Your task to perform on an android device: turn on improve location accuracy Image 0: 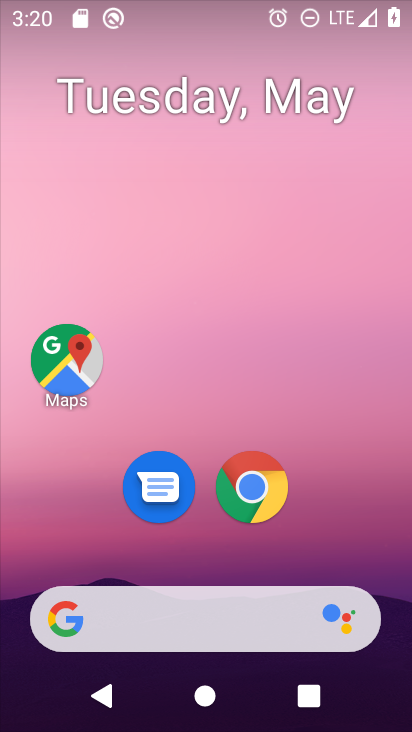
Step 0: drag from (165, 291) to (215, 160)
Your task to perform on an android device: turn on improve location accuracy Image 1: 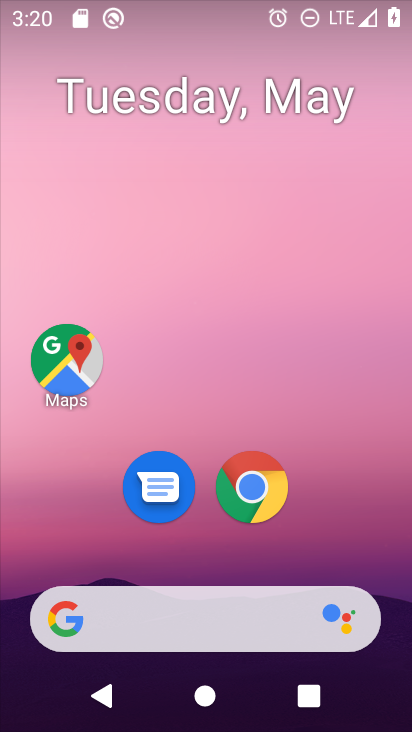
Step 1: drag from (86, 425) to (249, 83)
Your task to perform on an android device: turn on improve location accuracy Image 2: 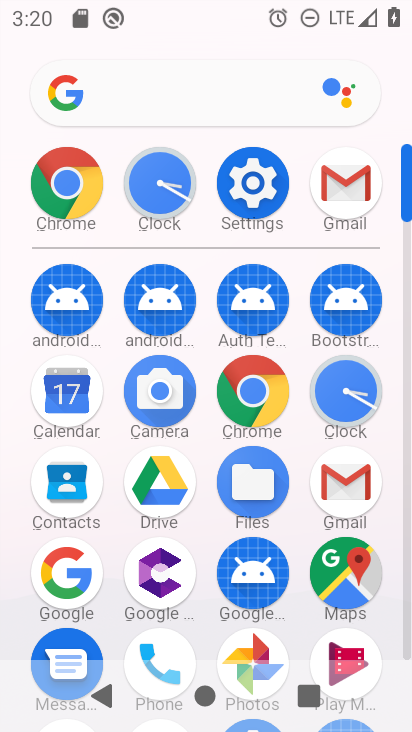
Step 2: click (246, 209)
Your task to perform on an android device: turn on improve location accuracy Image 3: 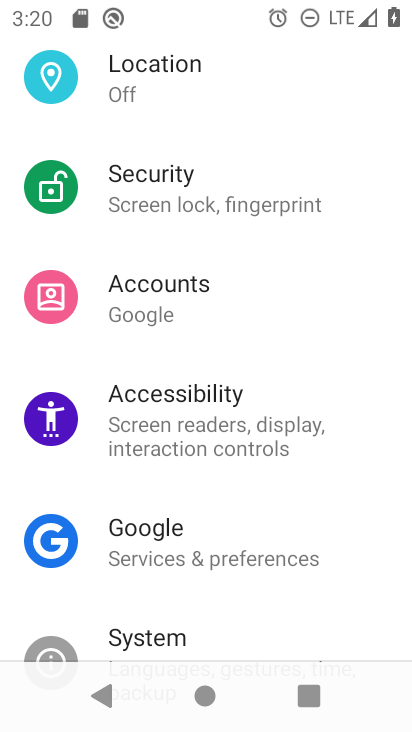
Step 3: click (163, 80)
Your task to perform on an android device: turn on improve location accuracy Image 4: 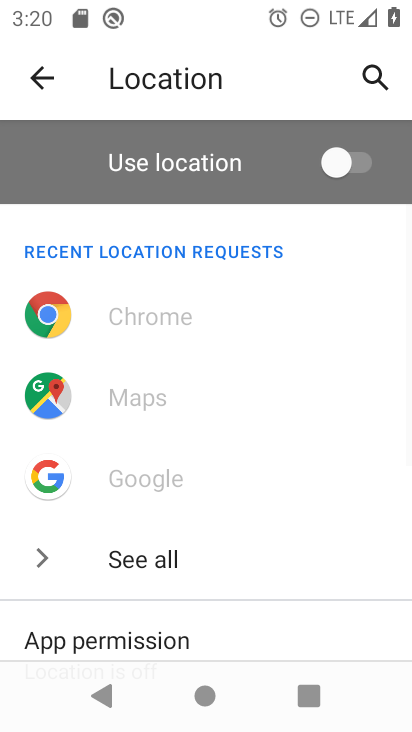
Step 4: drag from (74, 619) to (212, 218)
Your task to perform on an android device: turn on improve location accuracy Image 5: 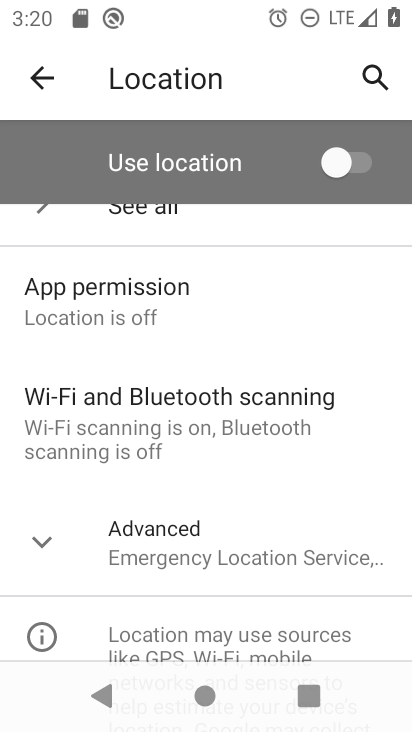
Step 5: click (192, 567)
Your task to perform on an android device: turn on improve location accuracy Image 6: 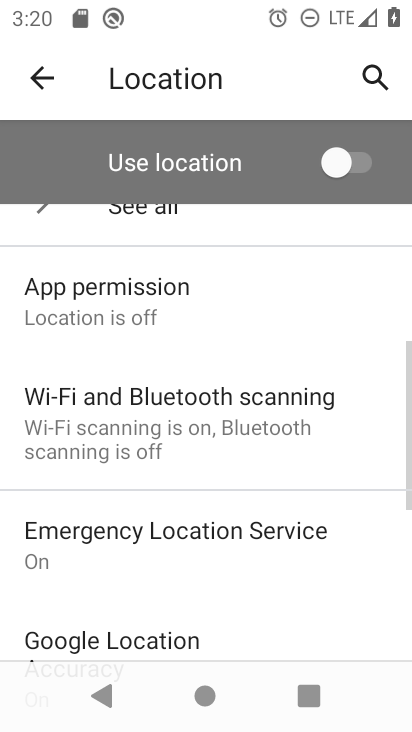
Step 6: drag from (108, 638) to (232, 293)
Your task to perform on an android device: turn on improve location accuracy Image 7: 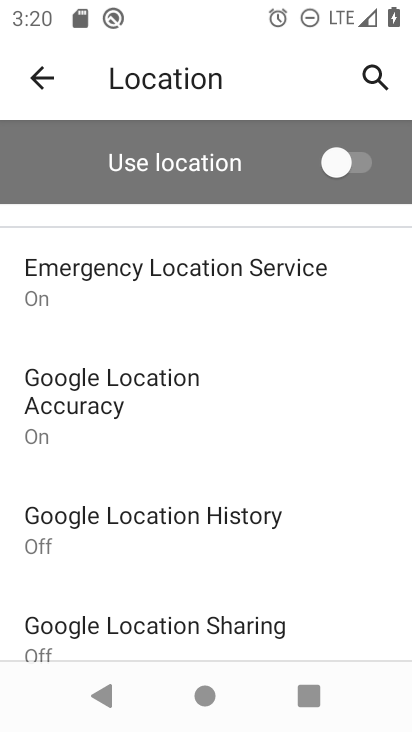
Step 7: click (146, 386)
Your task to perform on an android device: turn on improve location accuracy Image 8: 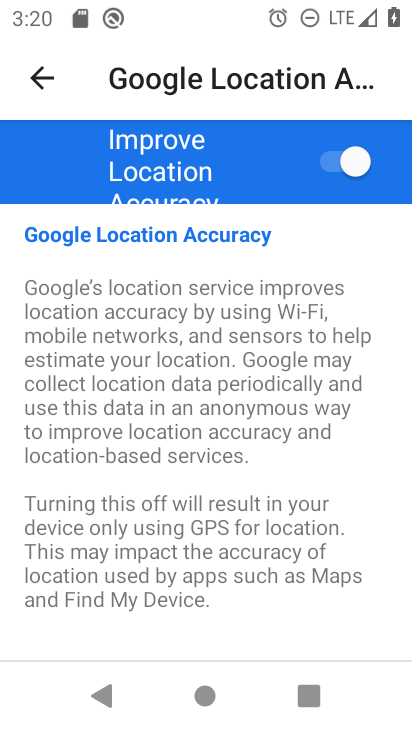
Step 8: task complete